Your task to perform on an android device: What's on my calendar today? Image 0: 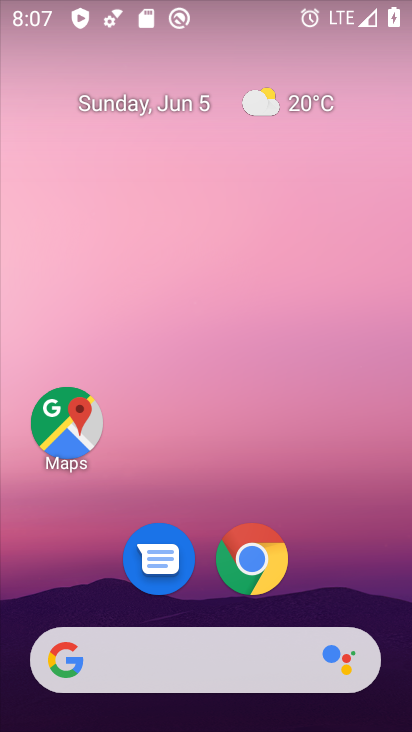
Step 0: drag from (336, 543) to (268, 183)
Your task to perform on an android device: What's on my calendar today? Image 1: 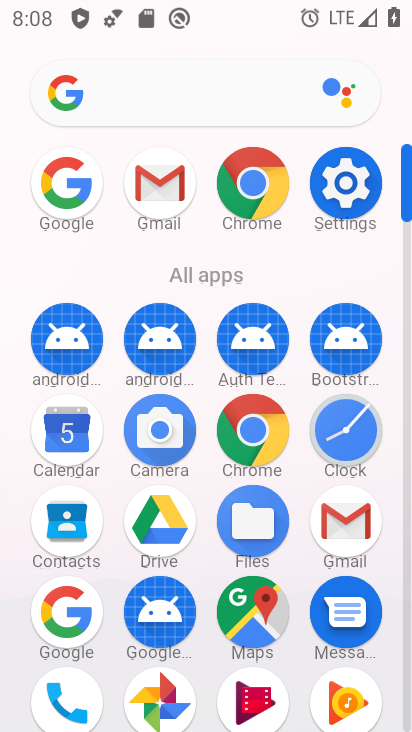
Step 1: click (77, 435)
Your task to perform on an android device: What's on my calendar today? Image 2: 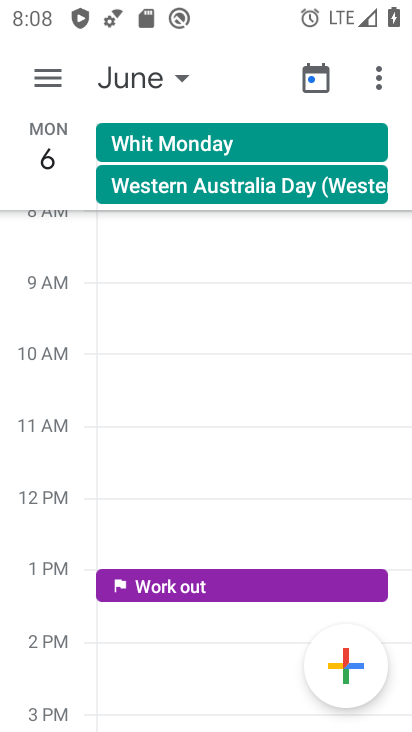
Step 2: click (122, 92)
Your task to perform on an android device: What's on my calendar today? Image 3: 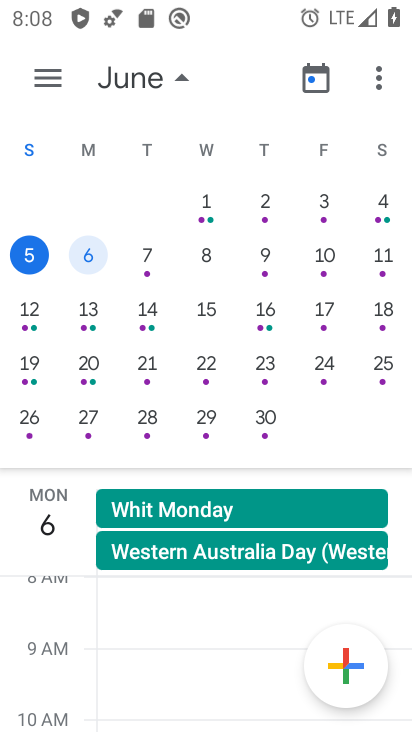
Step 3: click (21, 263)
Your task to perform on an android device: What's on my calendar today? Image 4: 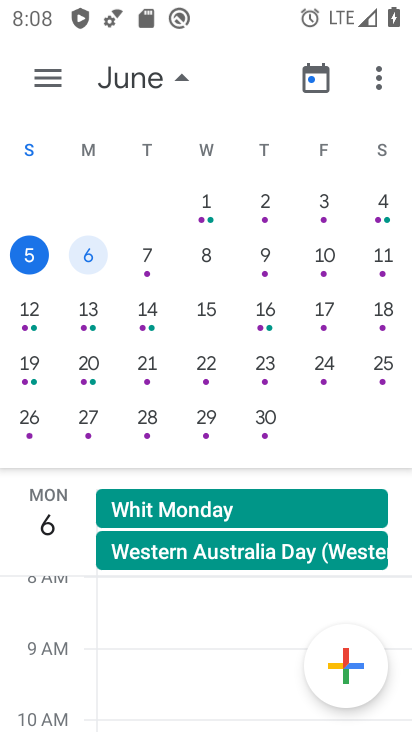
Step 4: click (40, 256)
Your task to perform on an android device: What's on my calendar today? Image 5: 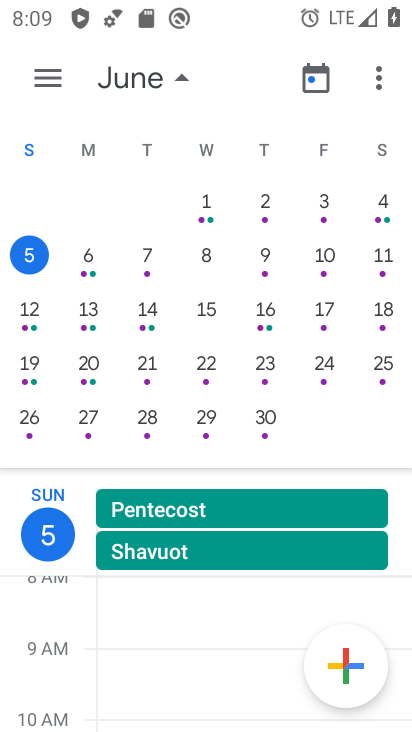
Step 5: task complete